Your task to perform on an android device: star an email in the gmail app Image 0: 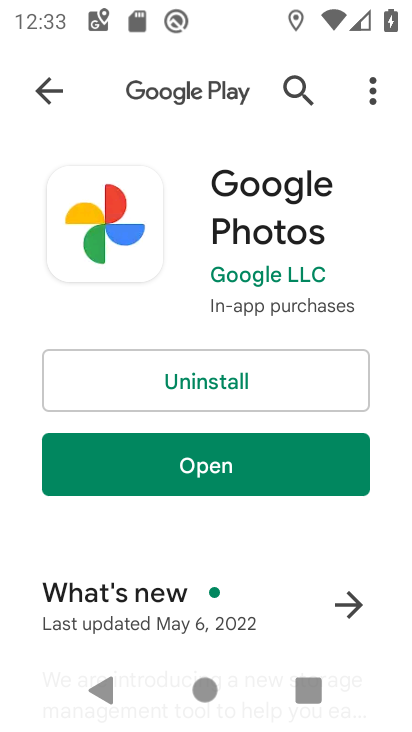
Step 0: press home button
Your task to perform on an android device: star an email in the gmail app Image 1: 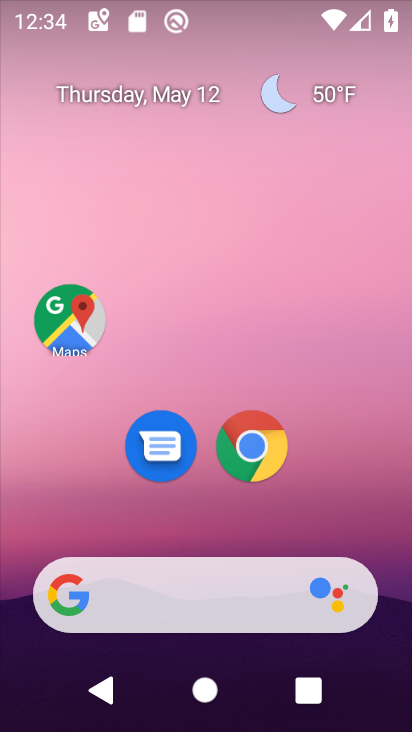
Step 1: drag from (330, 488) to (406, 558)
Your task to perform on an android device: star an email in the gmail app Image 2: 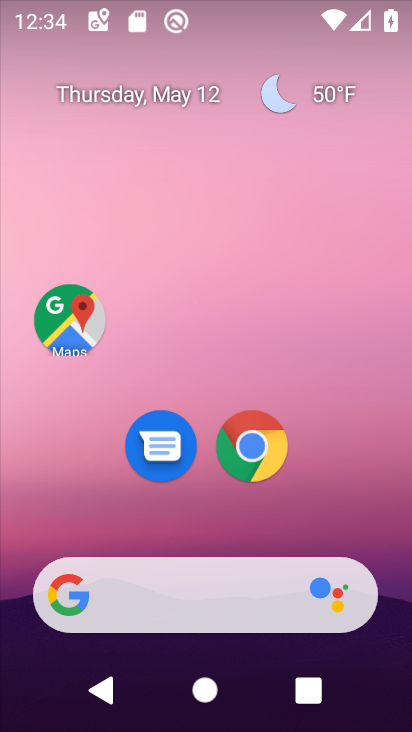
Step 2: drag from (368, 504) to (291, 1)
Your task to perform on an android device: star an email in the gmail app Image 3: 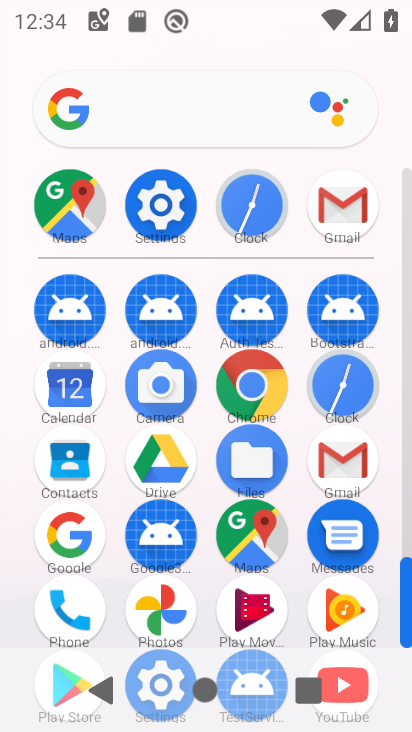
Step 3: click (354, 461)
Your task to perform on an android device: star an email in the gmail app Image 4: 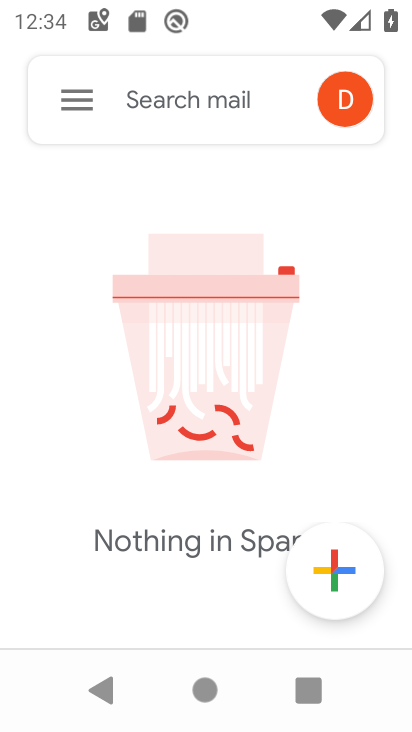
Step 4: click (62, 103)
Your task to perform on an android device: star an email in the gmail app Image 5: 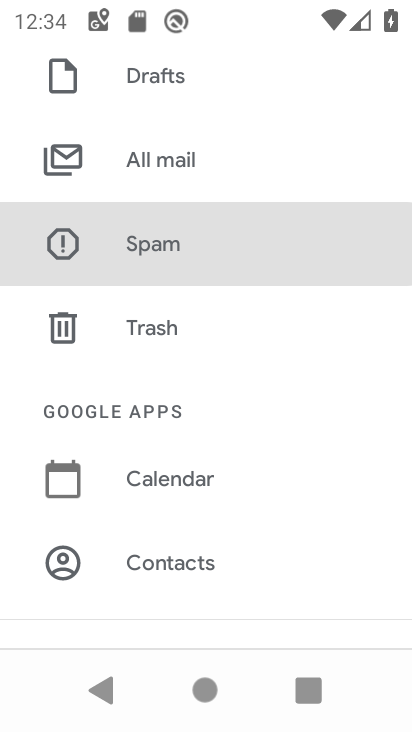
Step 5: click (144, 169)
Your task to perform on an android device: star an email in the gmail app Image 6: 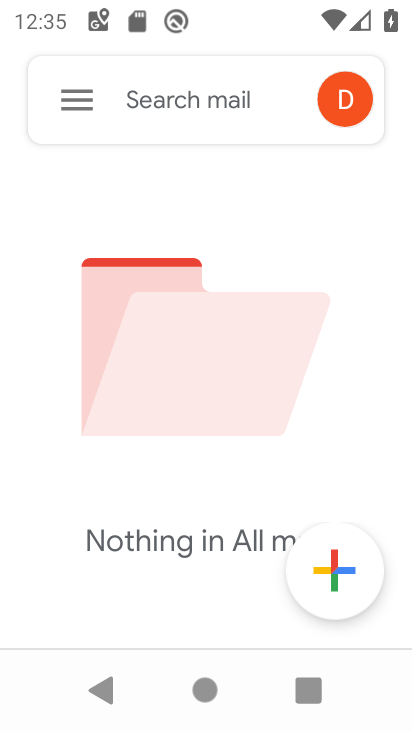
Step 6: task complete